Your task to perform on an android device: open a new tab in the chrome app Image 0: 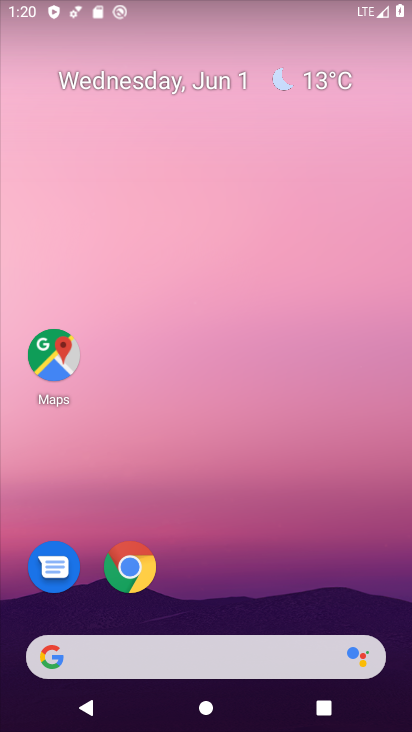
Step 0: click (138, 566)
Your task to perform on an android device: open a new tab in the chrome app Image 1: 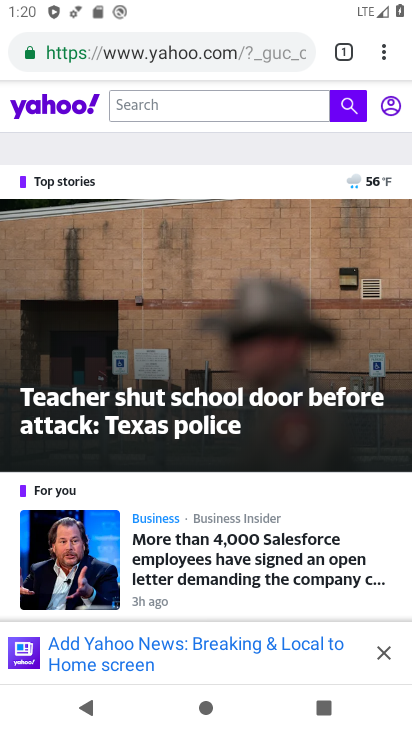
Step 1: click (383, 52)
Your task to perform on an android device: open a new tab in the chrome app Image 2: 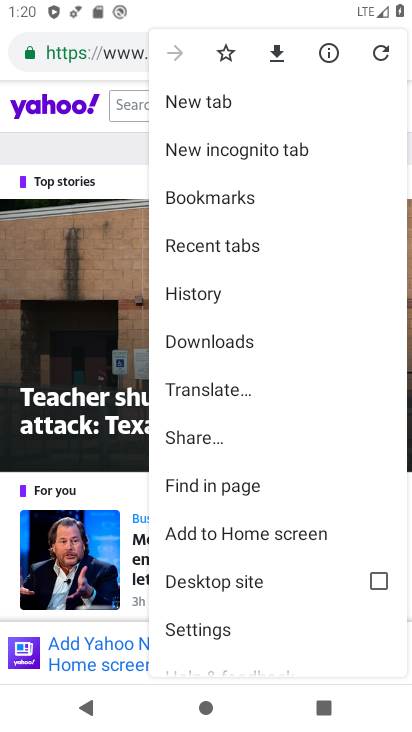
Step 2: click (199, 108)
Your task to perform on an android device: open a new tab in the chrome app Image 3: 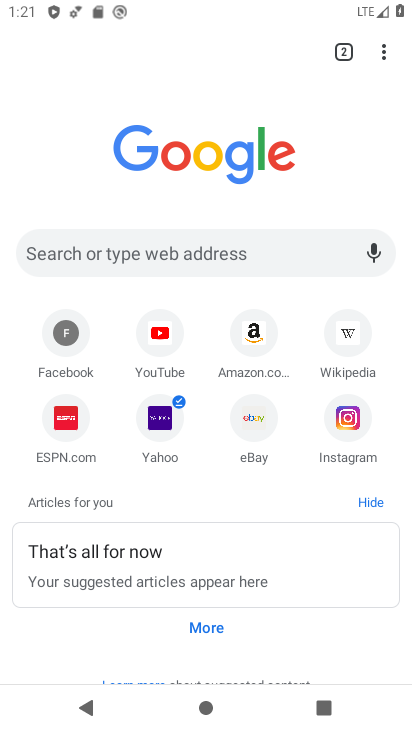
Step 3: task complete